Your task to perform on an android device: allow notifications from all sites in the chrome app Image 0: 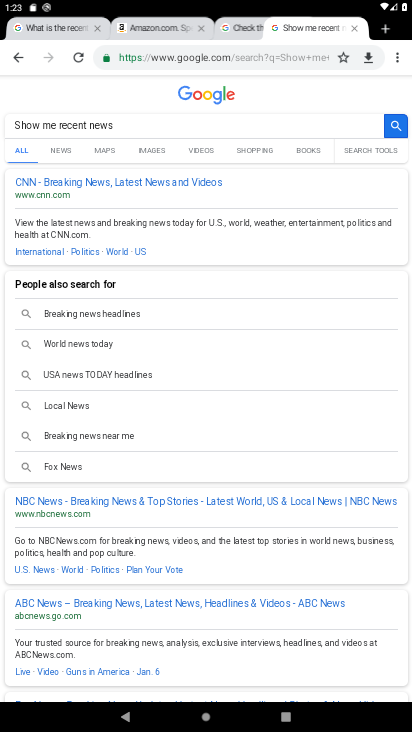
Step 0: click (409, 60)
Your task to perform on an android device: allow notifications from all sites in the chrome app Image 1: 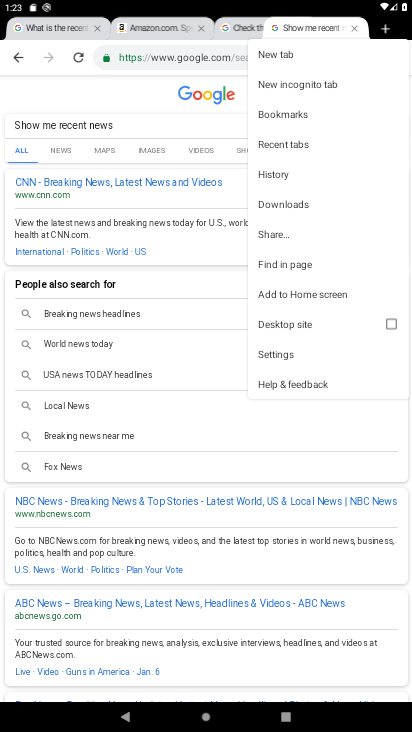
Step 1: click (290, 360)
Your task to perform on an android device: allow notifications from all sites in the chrome app Image 2: 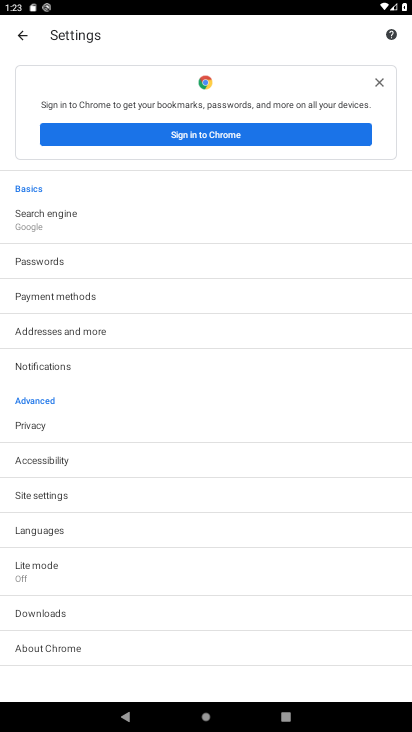
Step 2: drag from (133, 572) to (195, 379)
Your task to perform on an android device: allow notifications from all sites in the chrome app Image 3: 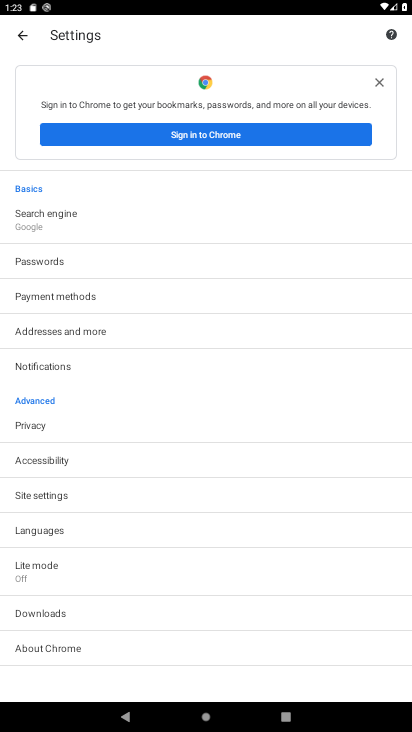
Step 3: click (82, 494)
Your task to perform on an android device: allow notifications from all sites in the chrome app Image 4: 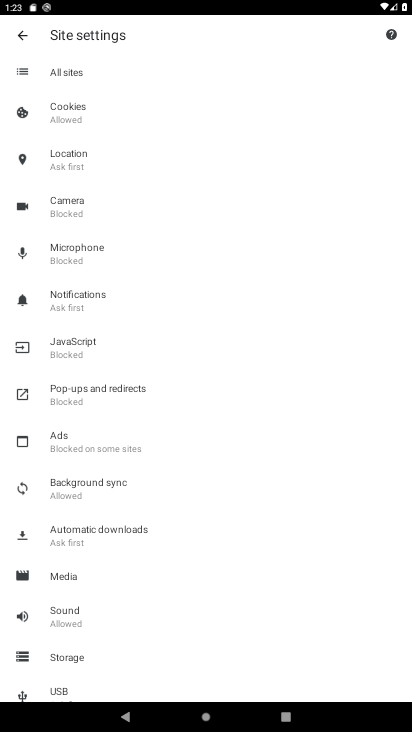
Step 4: click (80, 98)
Your task to perform on an android device: allow notifications from all sites in the chrome app Image 5: 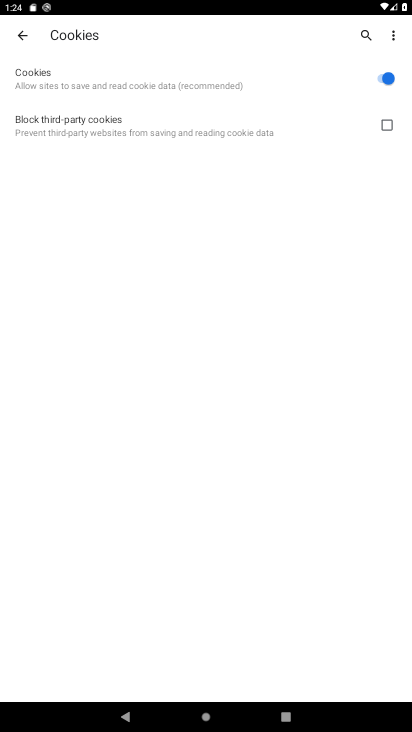
Step 5: click (21, 34)
Your task to perform on an android device: allow notifications from all sites in the chrome app Image 6: 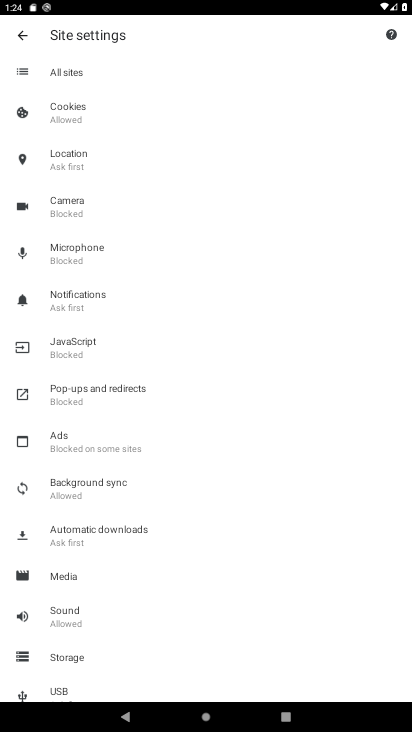
Step 6: click (97, 157)
Your task to perform on an android device: allow notifications from all sites in the chrome app Image 7: 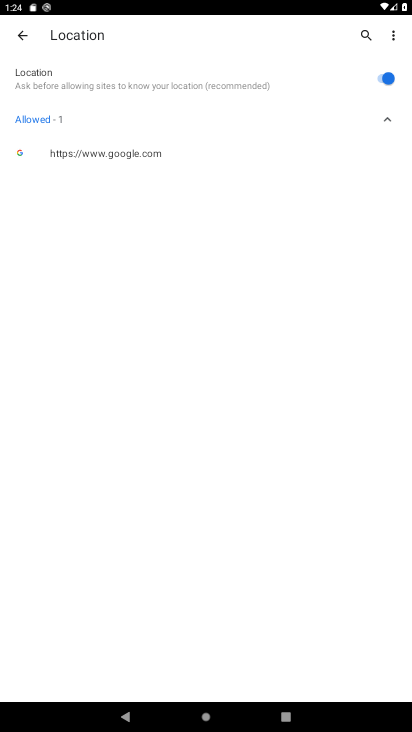
Step 7: click (20, 32)
Your task to perform on an android device: allow notifications from all sites in the chrome app Image 8: 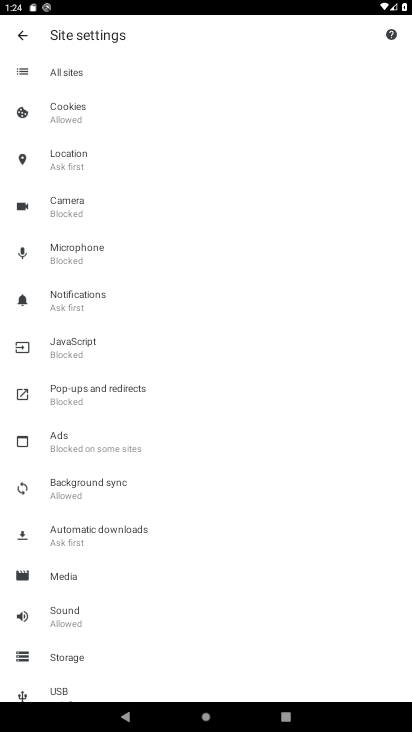
Step 8: click (77, 208)
Your task to perform on an android device: allow notifications from all sites in the chrome app Image 9: 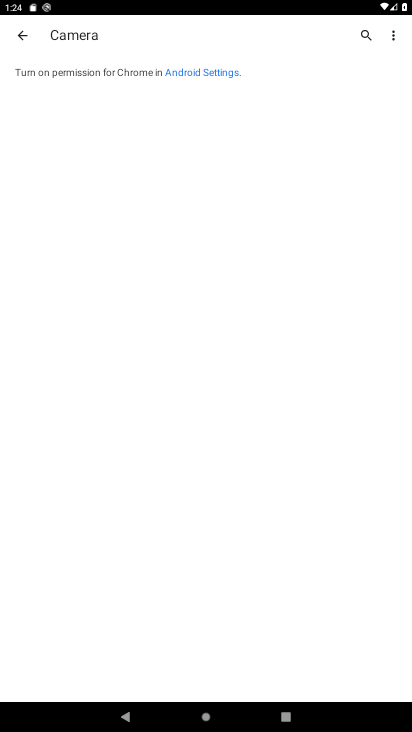
Step 9: click (20, 35)
Your task to perform on an android device: allow notifications from all sites in the chrome app Image 10: 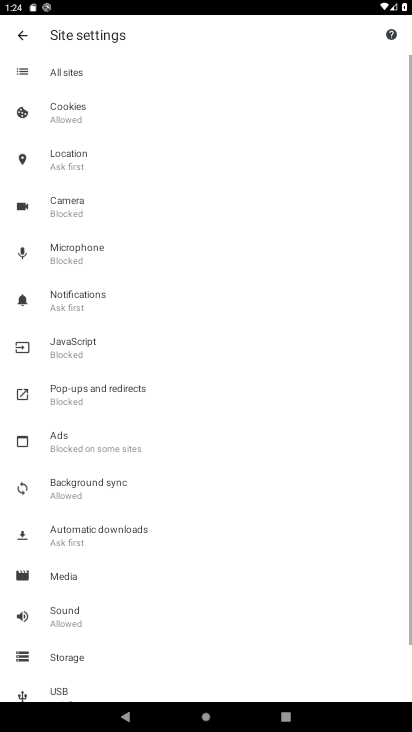
Step 10: click (87, 309)
Your task to perform on an android device: allow notifications from all sites in the chrome app Image 11: 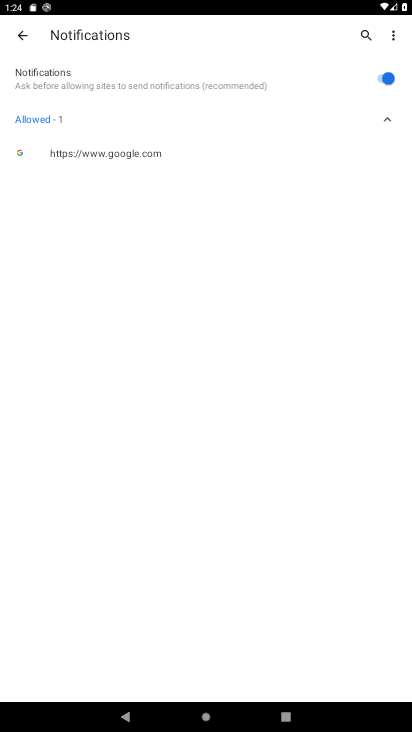
Step 11: click (19, 33)
Your task to perform on an android device: allow notifications from all sites in the chrome app Image 12: 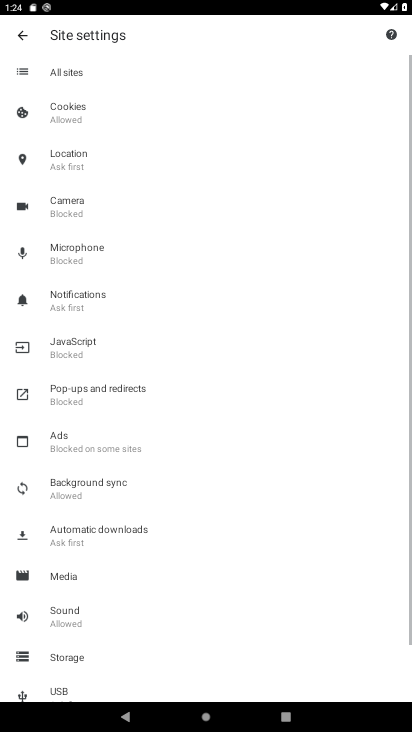
Step 12: click (94, 340)
Your task to perform on an android device: allow notifications from all sites in the chrome app Image 13: 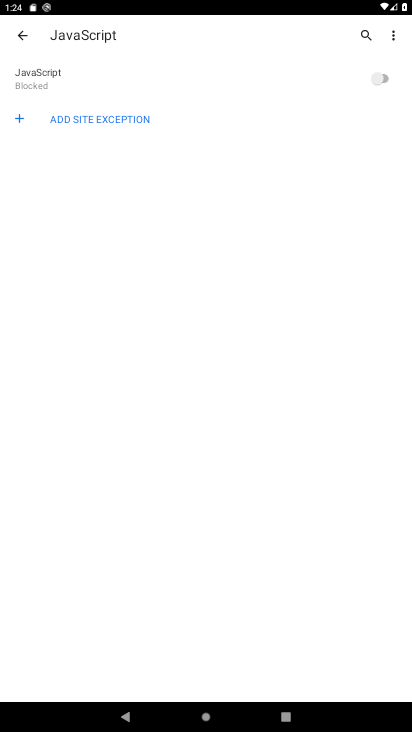
Step 13: click (389, 80)
Your task to perform on an android device: allow notifications from all sites in the chrome app Image 14: 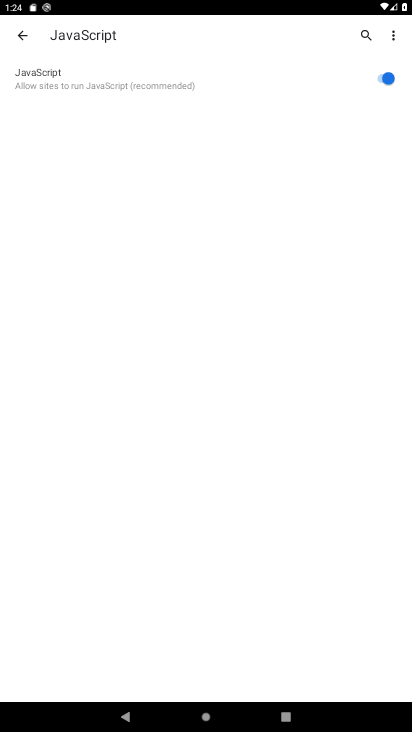
Step 14: click (24, 31)
Your task to perform on an android device: allow notifications from all sites in the chrome app Image 15: 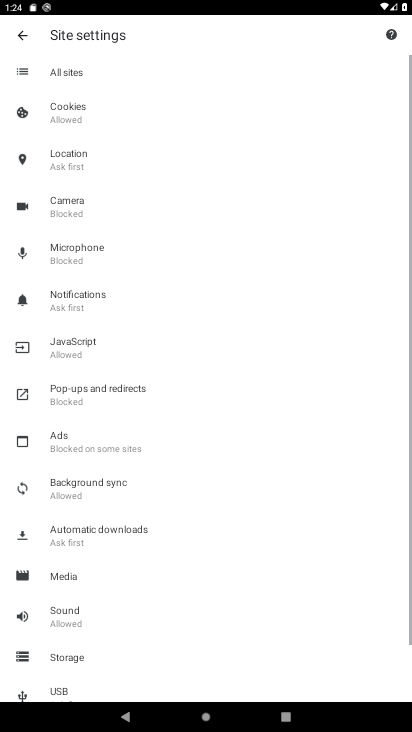
Step 15: click (81, 401)
Your task to perform on an android device: allow notifications from all sites in the chrome app Image 16: 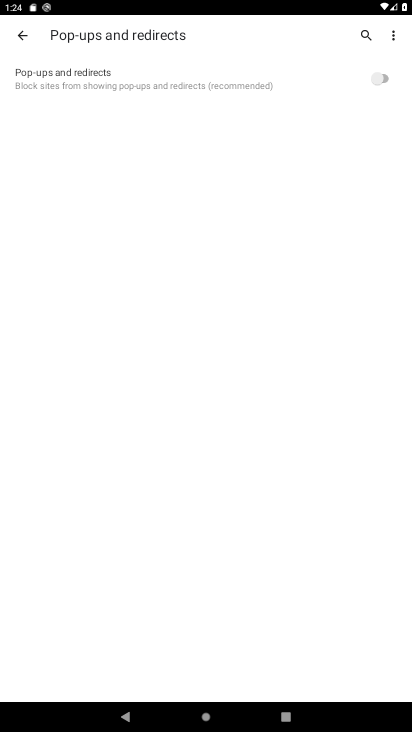
Step 16: click (388, 70)
Your task to perform on an android device: allow notifications from all sites in the chrome app Image 17: 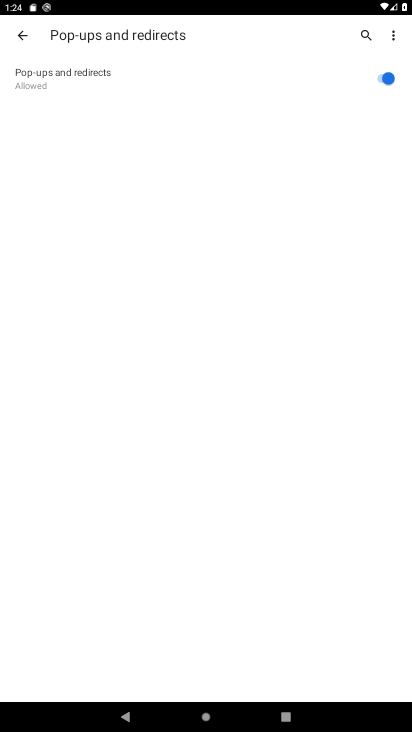
Step 17: click (27, 33)
Your task to perform on an android device: allow notifications from all sites in the chrome app Image 18: 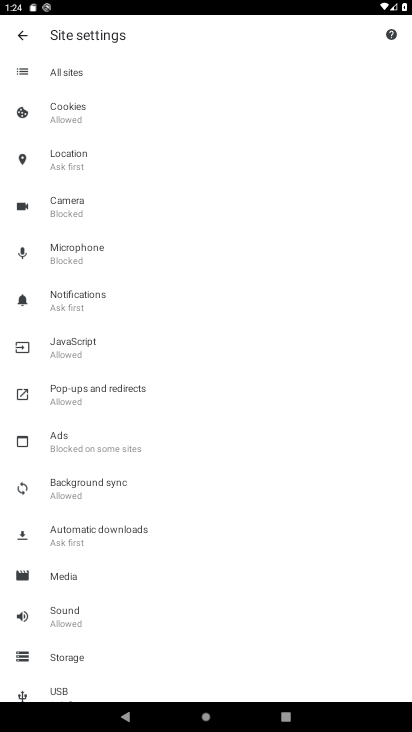
Step 18: click (86, 441)
Your task to perform on an android device: allow notifications from all sites in the chrome app Image 19: 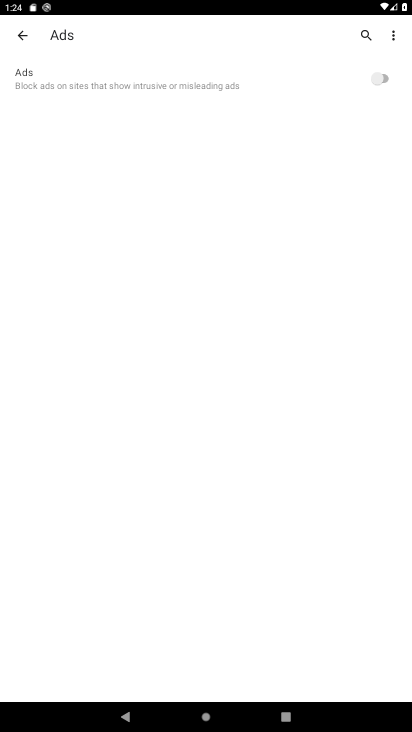
Step 19: click (383, 73)
Your task to perform on an android device: allow notifications from all sites in the chrome app Image 20: 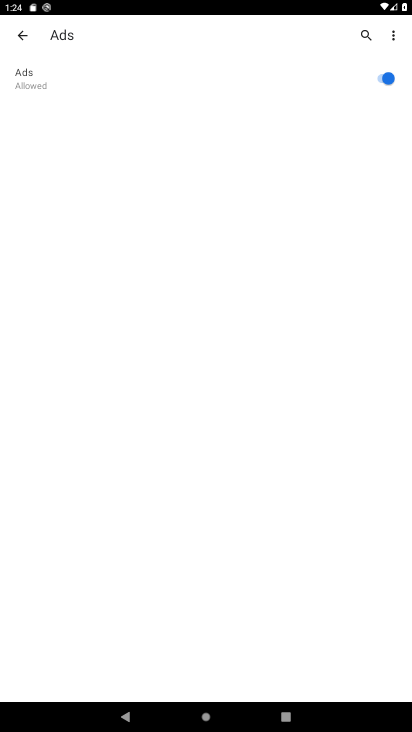
Step 20: click (16, 35)
Your task to perform on an android device: allow notifications from all sites in the chrome app Image 21: 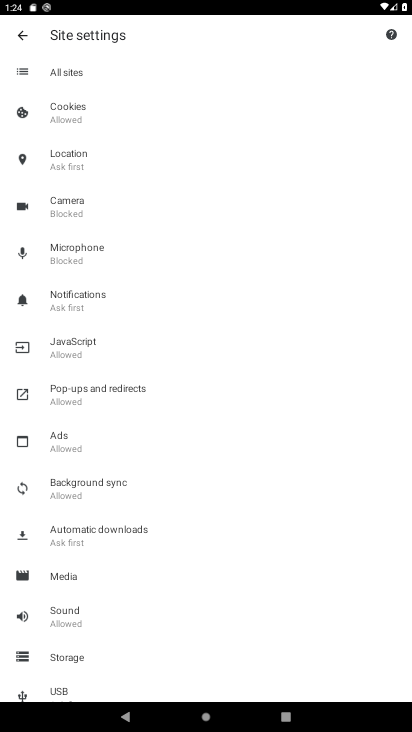
Step 21: click (120, 500)
Your task to perform on an android device: allow notifications from all sites in the chrome app Image 22: 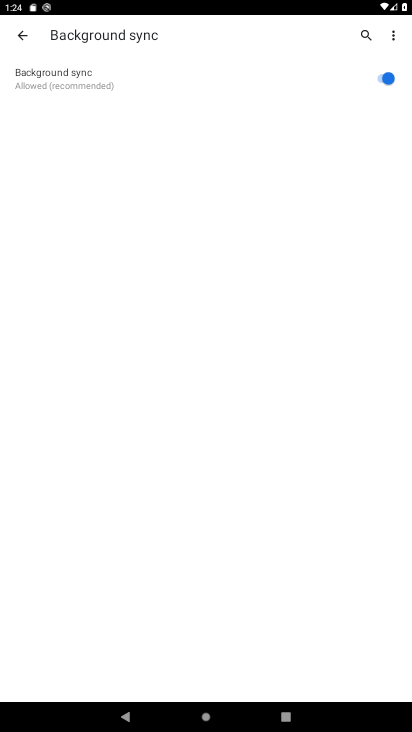
Step 22: click (21, 39)
Your task to perform on an android device: allow notifications from all sites in the chrome app Image 23: 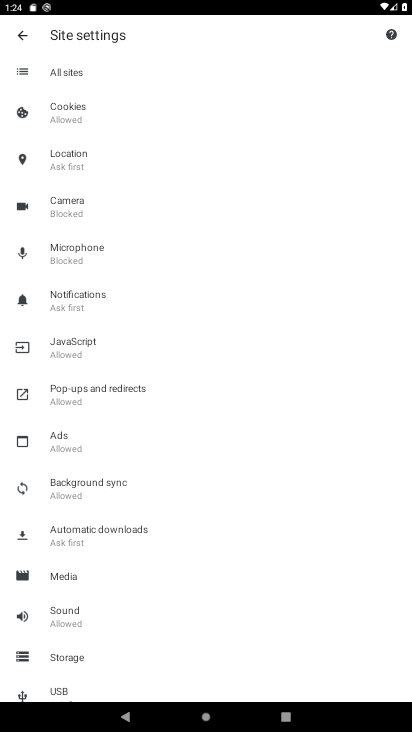
Step 23: task complete